Your task to perform on an android device: set the timer Image 0: 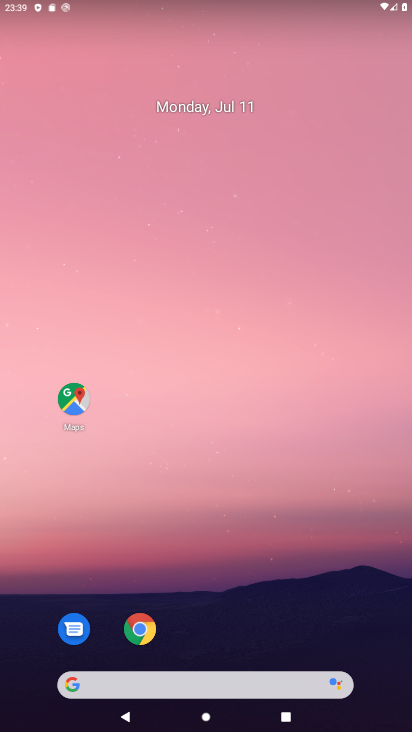
Step 0: drag from (356, 611) to (385, 169)
Your task to perform on an android device: set the timer Image 1: 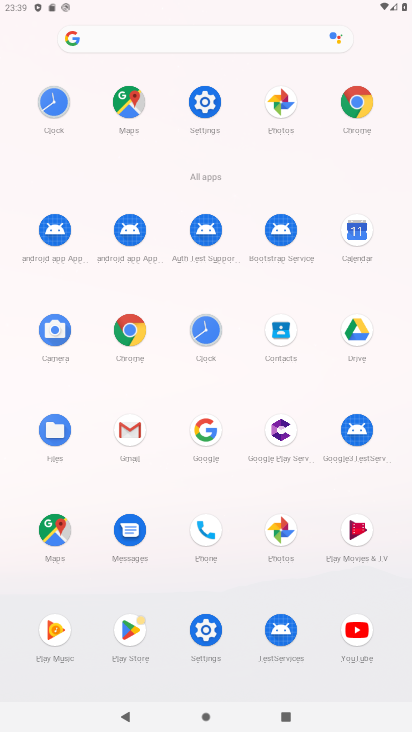
Step 1: click (209, 337)
Your task to perform on an android device: set the timer Image 2: 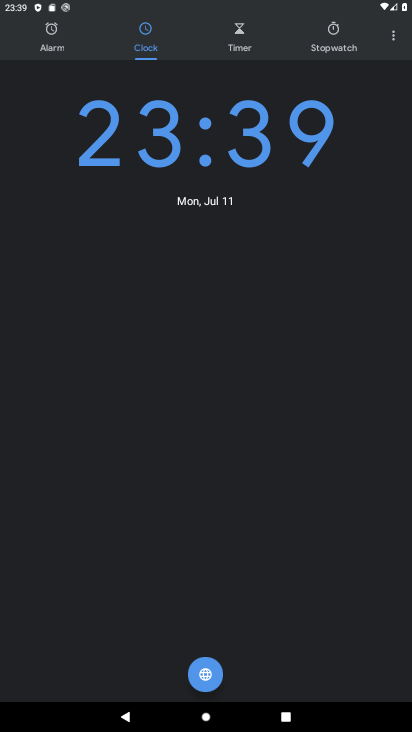
Step 2: click (241, 50)
Your task to perform on an android device: set the timer Image 3: 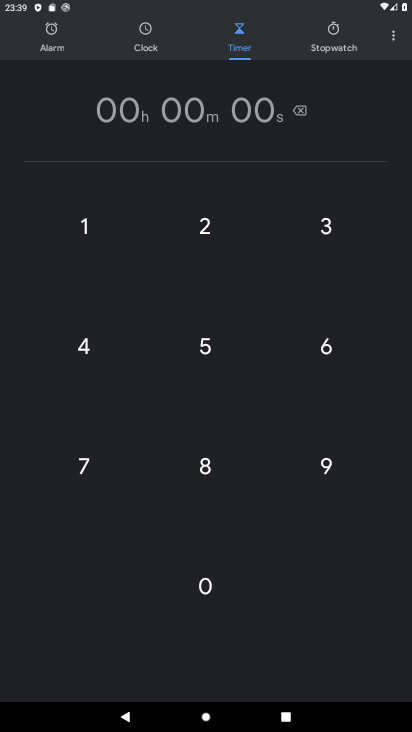
Step 3: click (215, 338)
Your task to perform on an android device: set the timer Image 4: 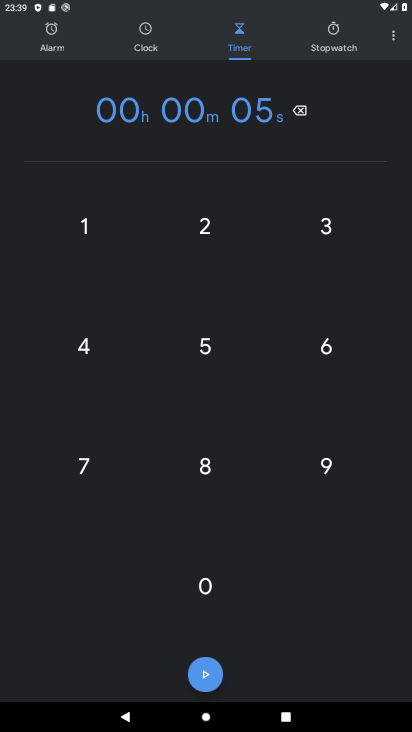
Step 4: task complete